Your task to perform on an android device: Go to sound settings Image 0: 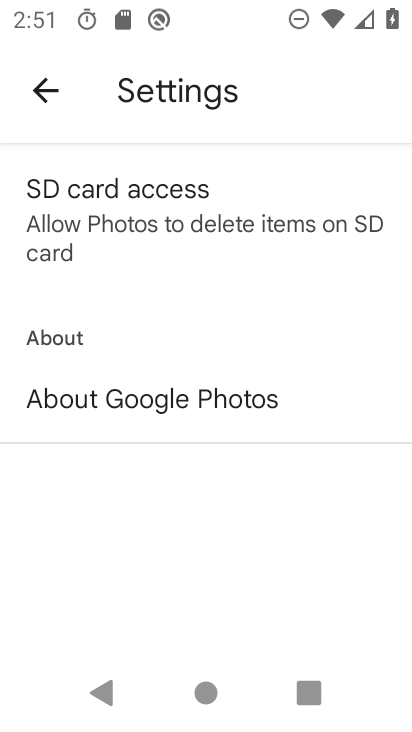
Step 0: press home button
Your task to perform on an android device: Go to sound settings Image 1: 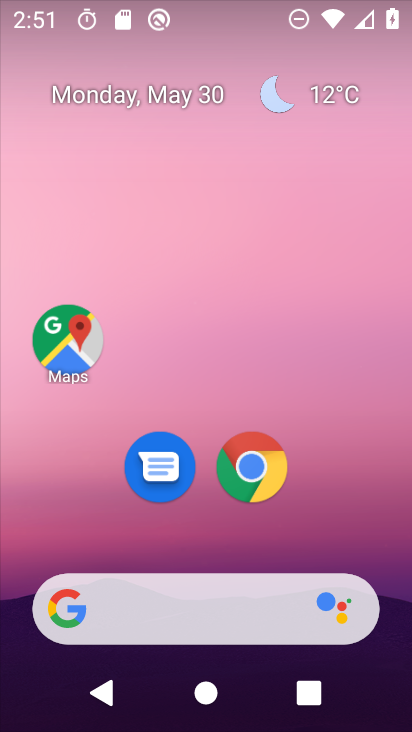
Step 1: drag from (376, 700) to (233, 208)
Your task to perform on an android device: Go to sound settings Image 2: 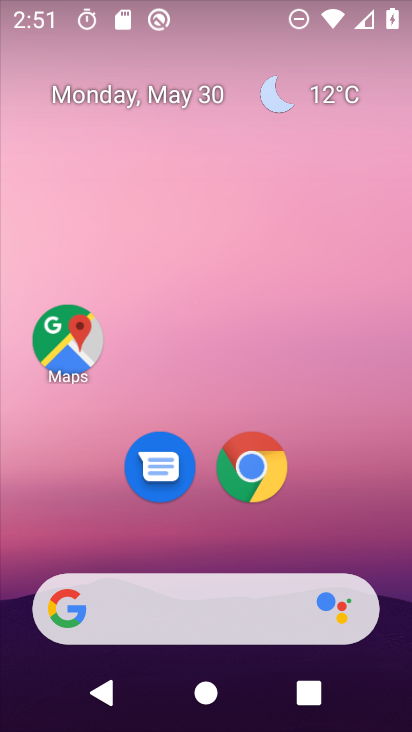
Step 2: drag from (390, 709) to (281, 160)
Your task to perform on an android device: Go to sound settings Image 3: 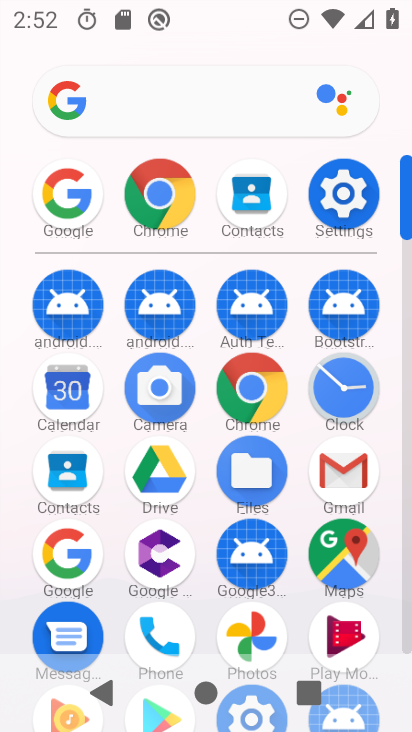
Step 3: click (319, 200)
Your task to perform on an android device: Go to sound settings Image 4: 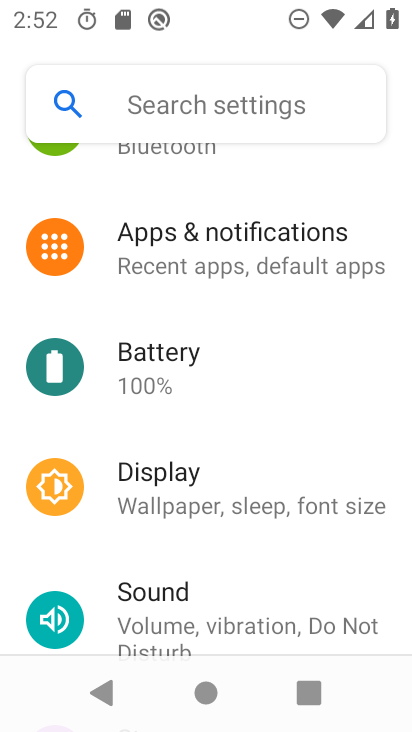
Step 4: click (217, 611)
Your task to perform on an android device: Go to sound settings Image 5: 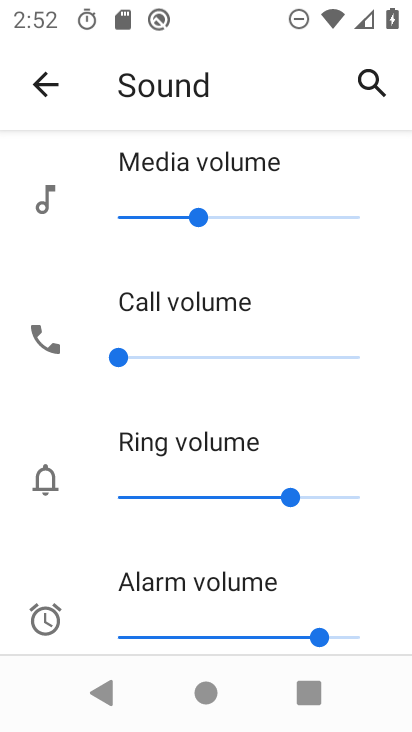
Step 5: task complete